Your task to perform on an android device: Open Google Chrome and click the shortcut for Amazon.com Image 0: 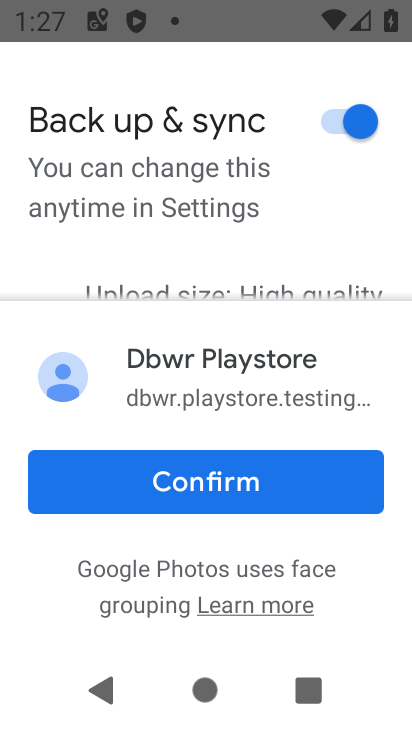
Step 0: press home button
Your task to perform on an android device: Open Google Chrome and click the shortcut for Amazon.com Image 1: 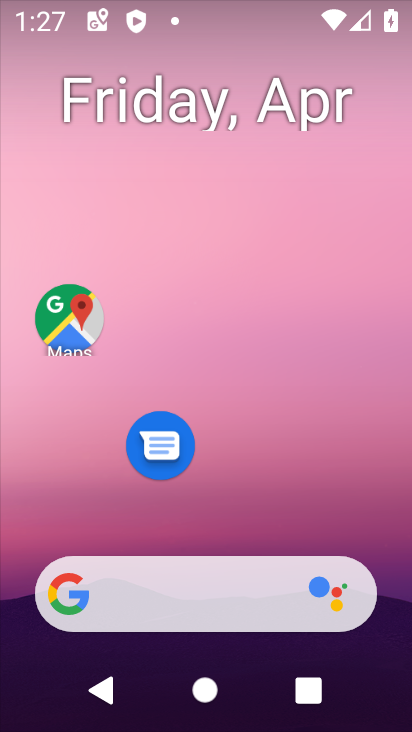
Step 1: drag from (243, 516) to (210, 65)
Your task to perform on an android device: Open Google Chrome and click the shortcut for Amazon.com Image 2: 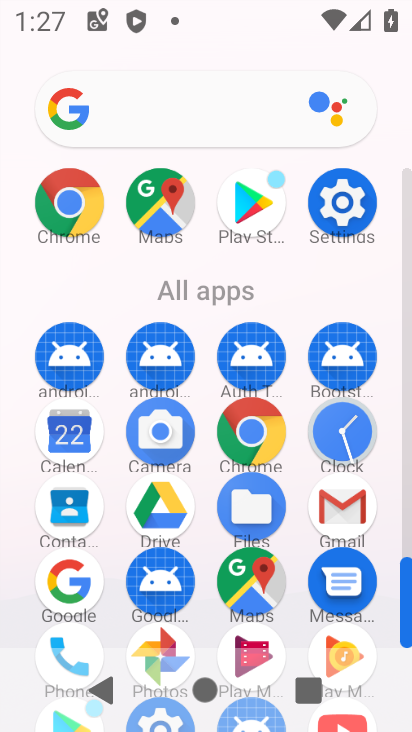
Step 2: click (68, 197)
Your task to perform on an android device: Open Google Chrome and click the shortcut for Amazon.com Image 3: 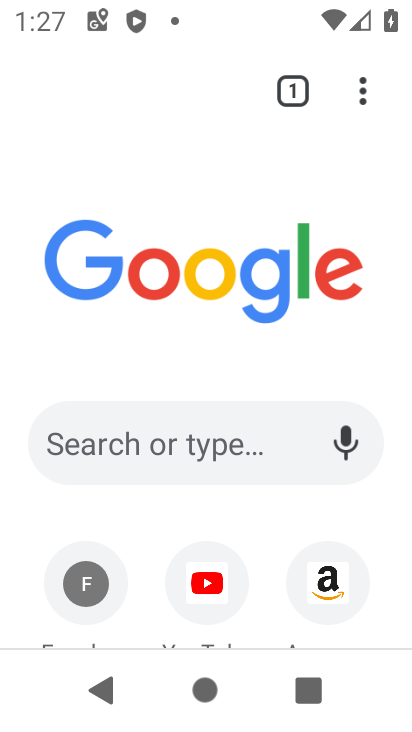
Step 3: click (333, 585)
Your task to perform on an android device: Open Google Chrome and click the shortcut for Amazon.com Image 4: 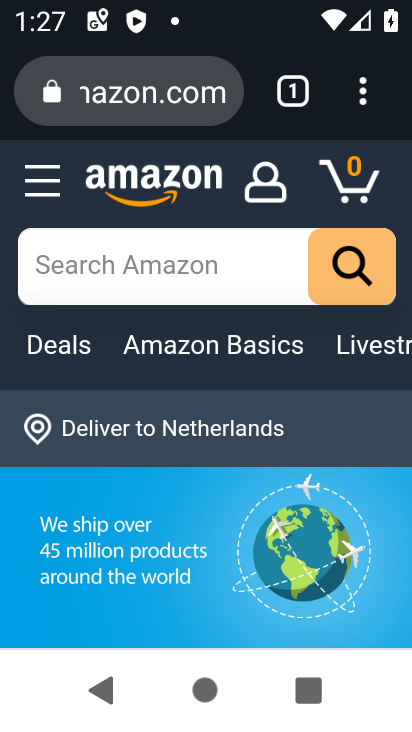
Step 4: task complete